Your task to perform on an android device: check storage Image 0: 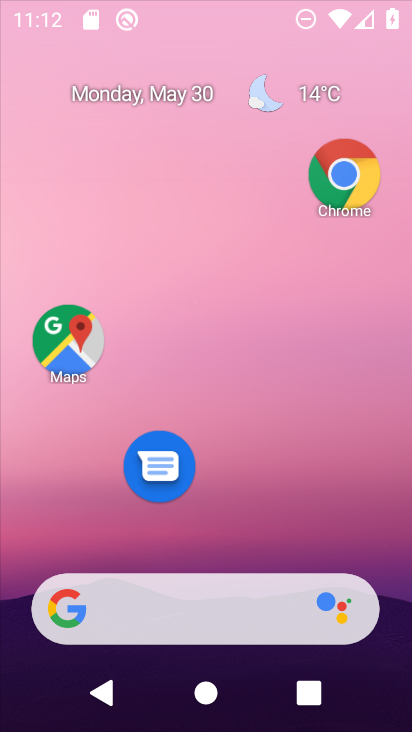
Step 0: drag from (239, 525) to (180, 77)
Your task to perform on an android device: check storage Image 1: 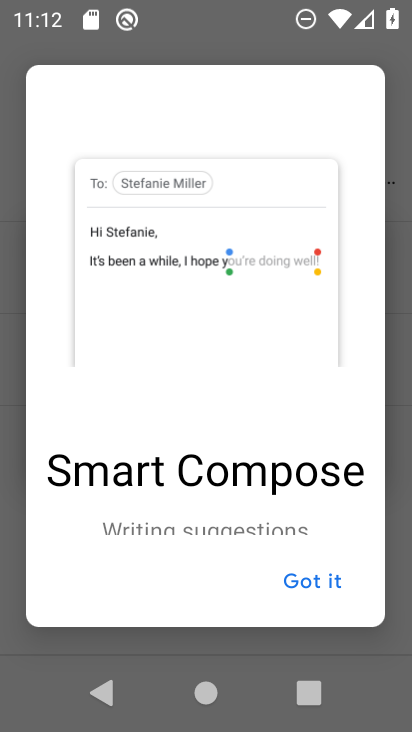
Step 1: press home button
Your task to perform on an android device: check storage Image 2: 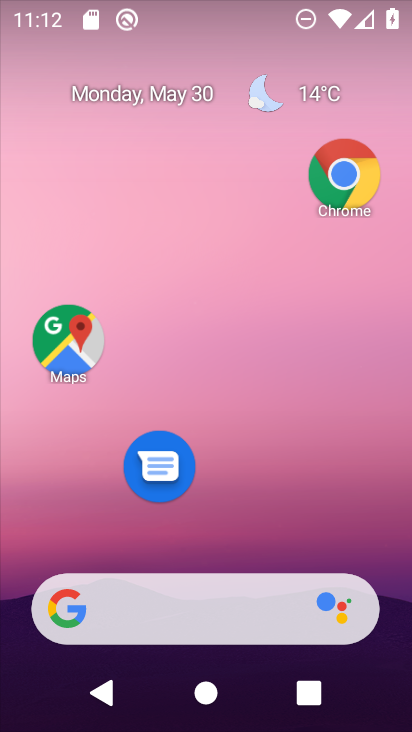
Step 2: drag from (312, 518) to (184, 57)
Your task to perform on an android device: check storage Image 3: 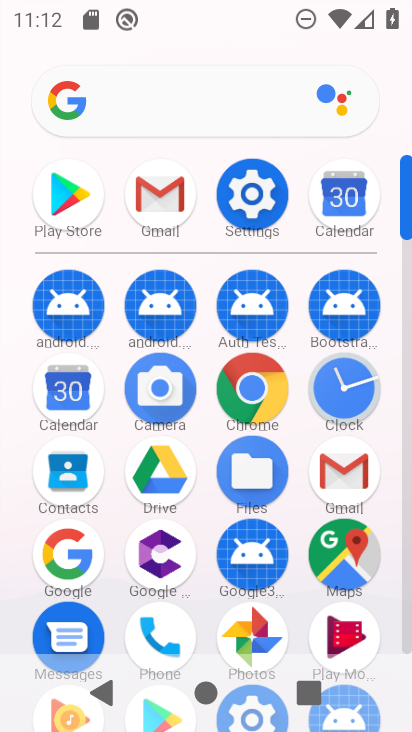
Step 3: click (251, 185)
Your task to perform on an android device: check storage Image 4: 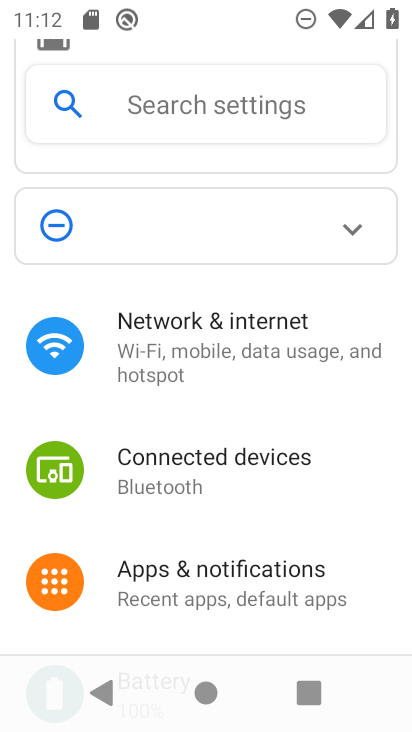
Step 4: drag from (350, 525) to (363, 269)
Your task to perform on an android device: check storage Image 5: 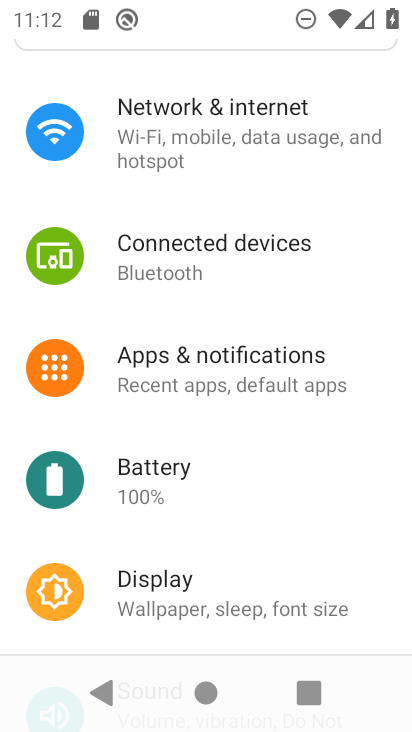
Step 5: drag from (250, 492) to (248, 123)
Your task to perform on an android device: check storage Image 6: 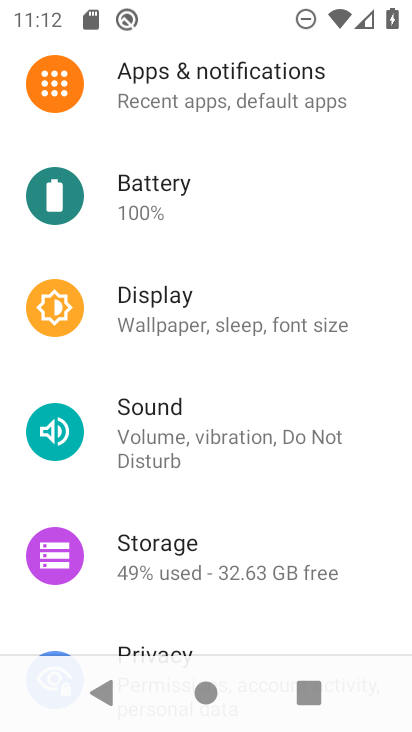
Step 6: click (163, 568)
Your task to perform on an android device: check storage Image 7: 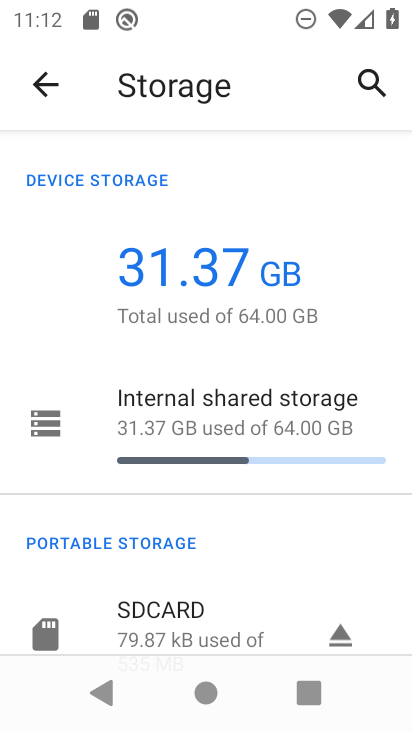
Step 7: task complete